Your task to perform on an android device: Open the calendar and show me this week's events Image 0: 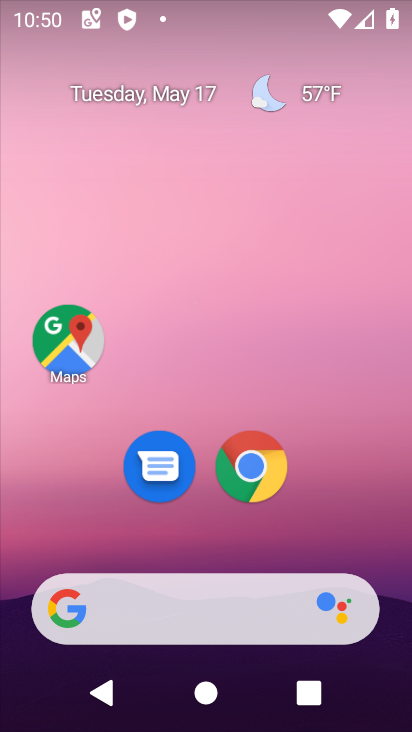
Step 0: drag from (223, 549) to (256, 14)
Your task to perform on an android device: Open the calendar and show me this week's events Image 1: 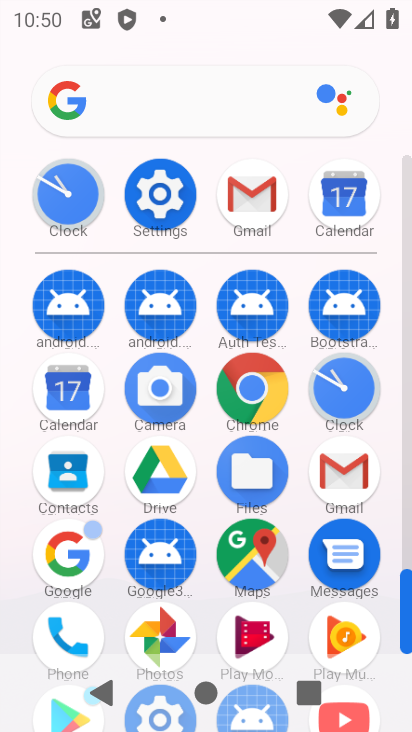
Step 1: click (327, 190)
Your task to perform on an android device: Open the calendar and show me this week's events Image 2: 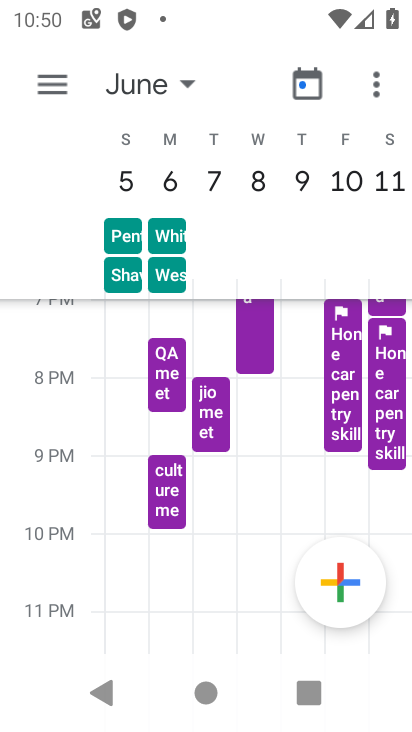
Step 2: click (294, 92)
Your task to perform on an android device: Open the calendar and show me this week's events Image 3: 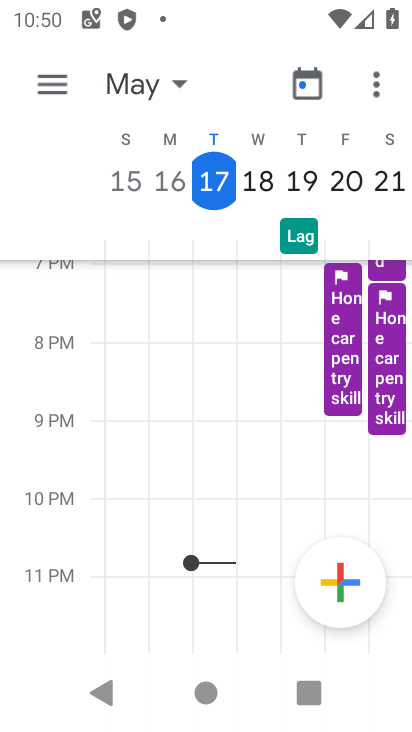
Step 3: task complete